Your task to perform on an android device: Open privacy settings Image 0: 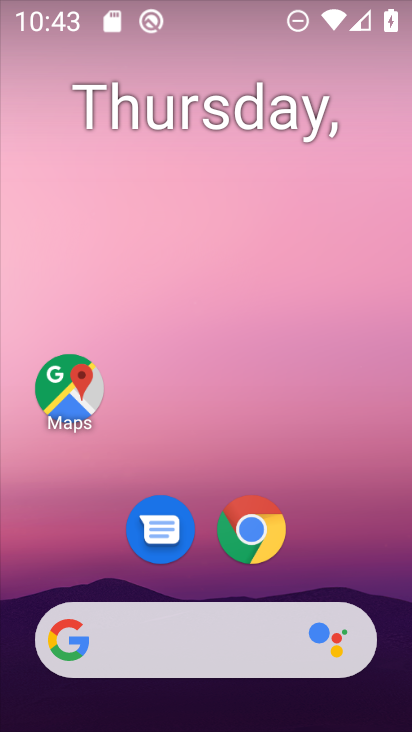
Step 0: drag from (109, 678) to (141, 390)
Your task to perform on an android device: Open privacy settings Image 1: 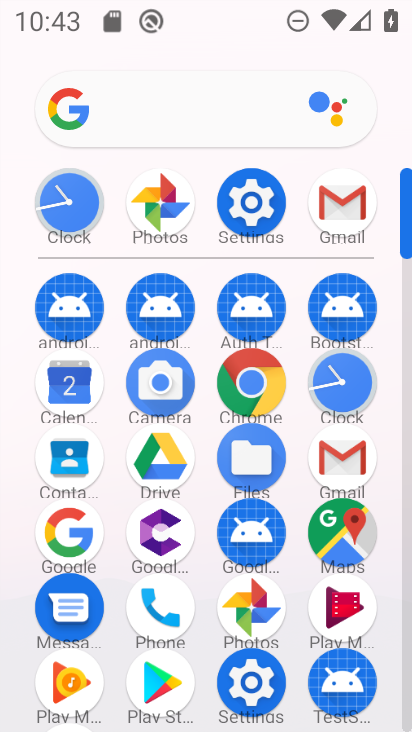
Step 1: click (249, 198)
Your task to perform on an android device: Open privacy settings Image 2: 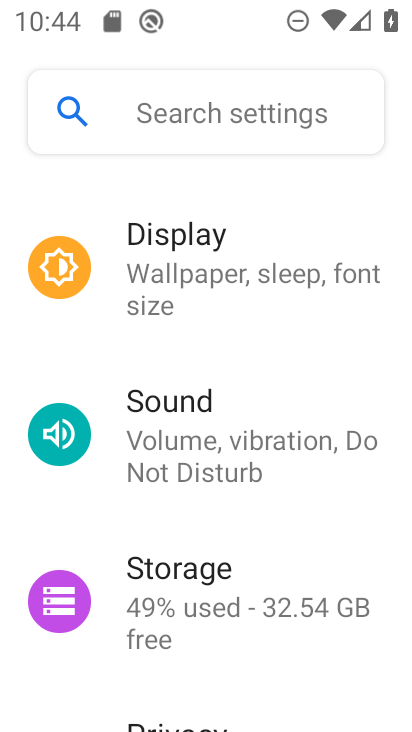
Step 2: drag from (187, 646) to (226, 51)
Your task to perform on an android device: Open privacy settings Image 3: 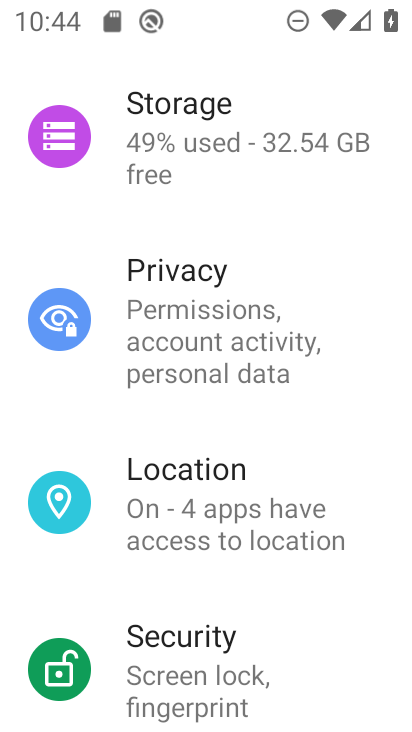
Step 3: click (190, 345)
Your task to perform on an android device: Open privacy settings Image 4: 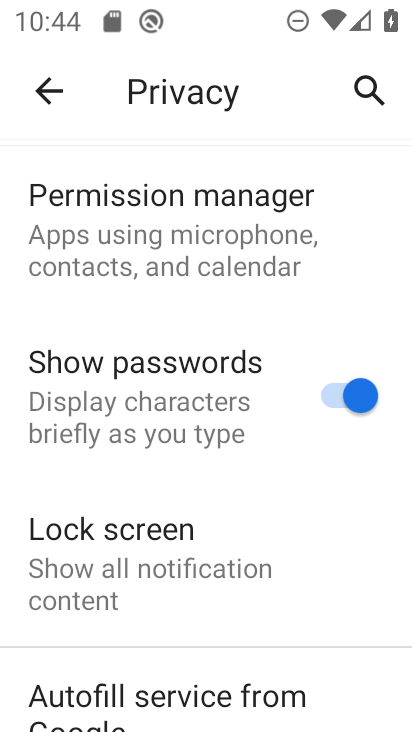
Step 4: task complete